Your task to perform on an android device: turn on bluetooth scan Image 0: 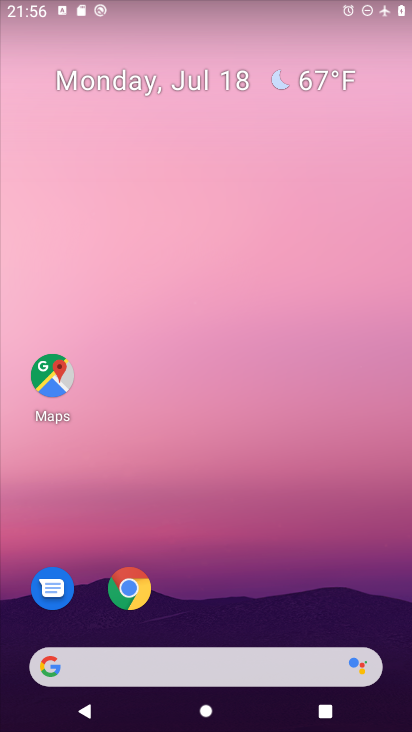
Step 0: drag from (378, 618) to (331, 188)
Your task to perform on an android device: turn on bluetooth scan Image 1: 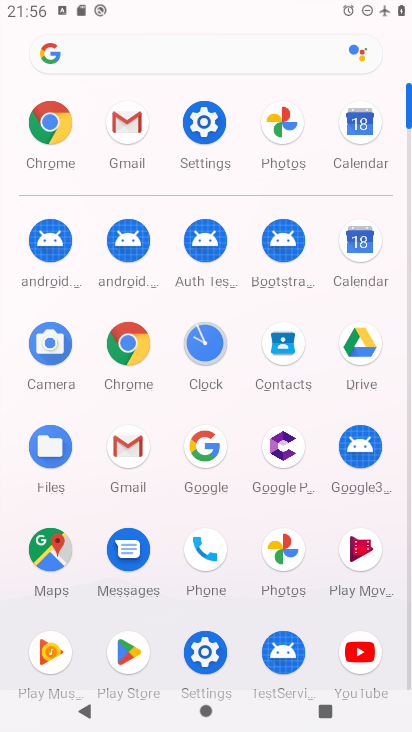
Step 1: click (203, 648)
Your task to perform on an android device: turn on bluetooth scan Image 2: 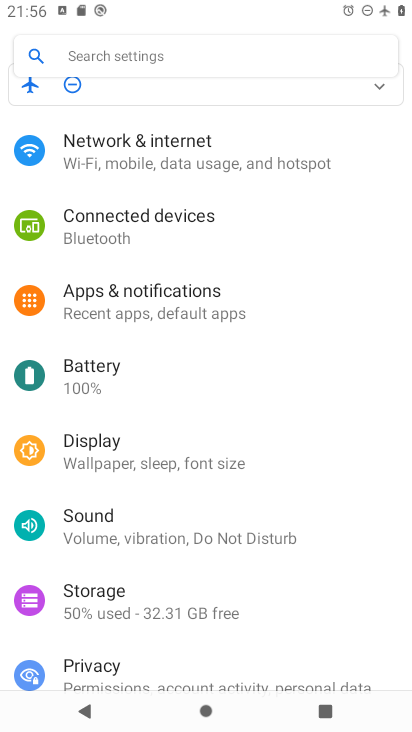
Step 2: drag from (246, 651) to (233, 271)
Your task to perform on an android device: turn on bluetooth scan Image 3: 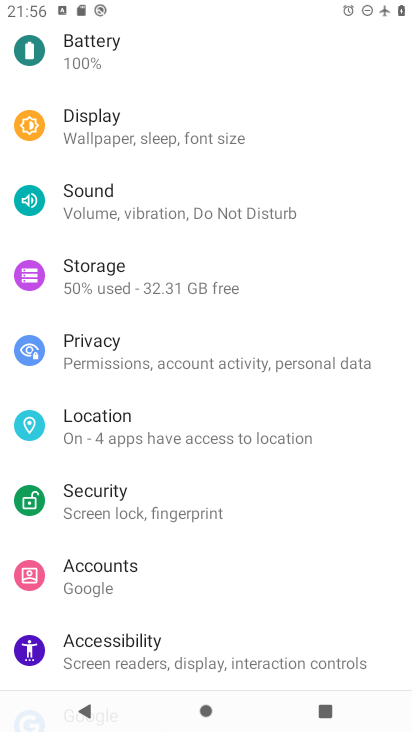
Step 3: click (96, 417)
Your task to perform on an android device: turn on bluetooth scan Image 4: 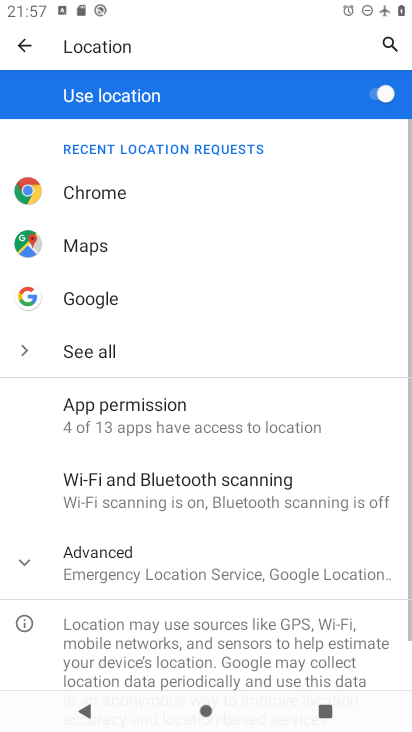
Step 4: click (159, 500)
Your task to perform on an android device: turn on bluetooth scan Image 5: 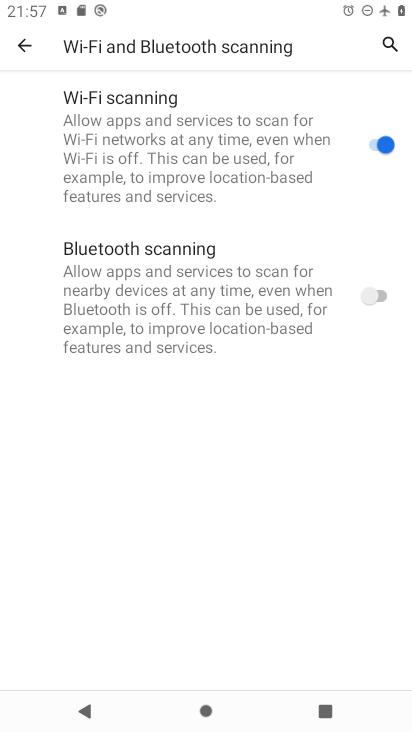
Step 5: click (378, 298)
Your task to perform on an android device: turn on bluetooth scan Image 6: 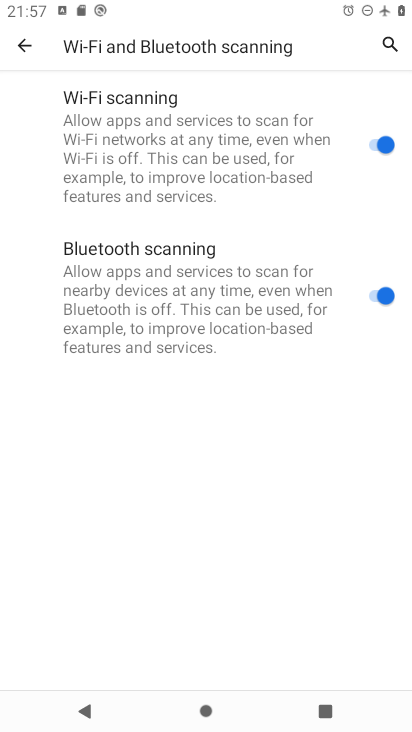
Step 6: task complete